Your task to perform on an android device: set the stopwatch Image 0: 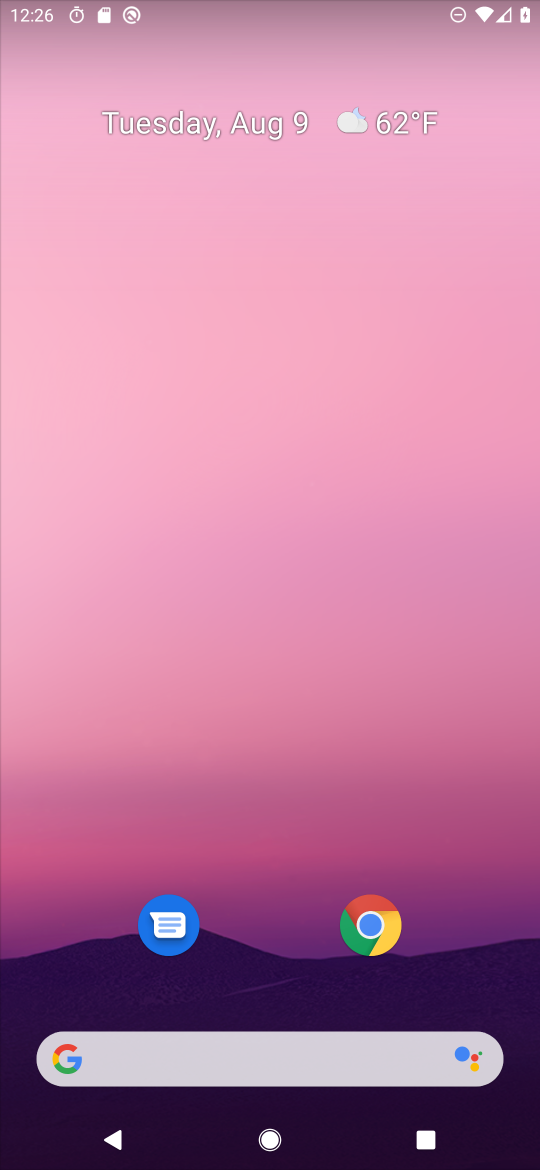
Step 0: drag from (272, 903) to (311, 231)
Your task to perform on an android device: set the stopwatch Image 1: 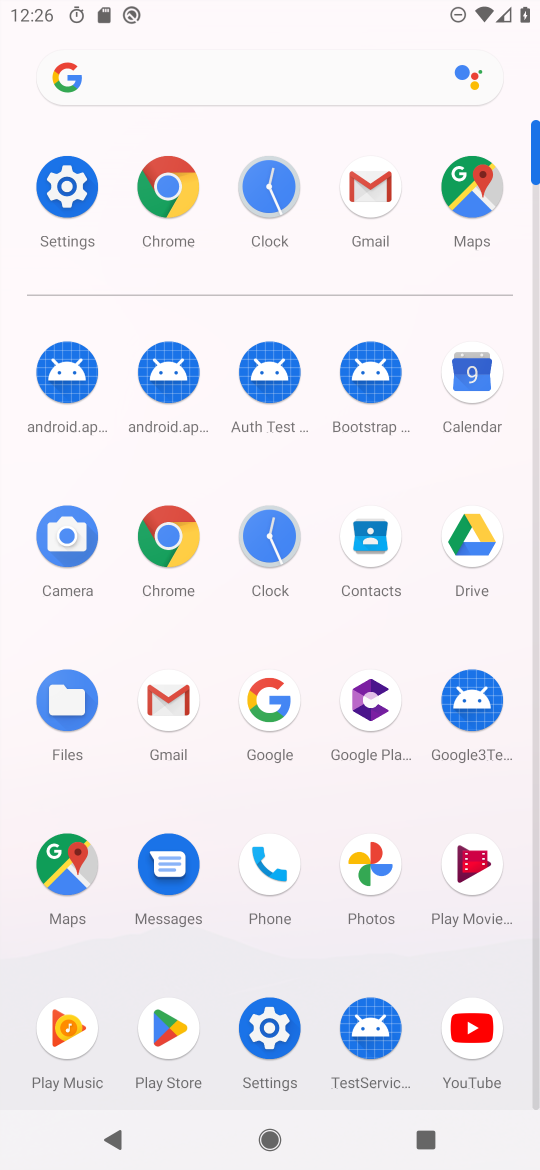
Step 1: click (268, 524)
Your task to perform on an android device: set the stopwatch Image 2: 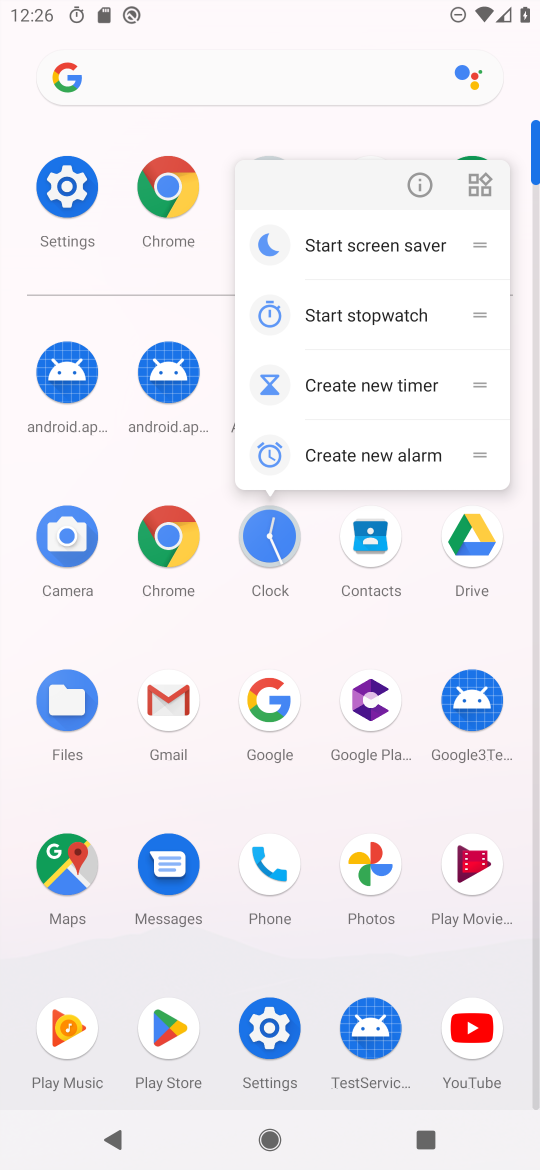
Step 2: click (268, 528)
Your task to perform on an android device: set the stopwatch Image 3: 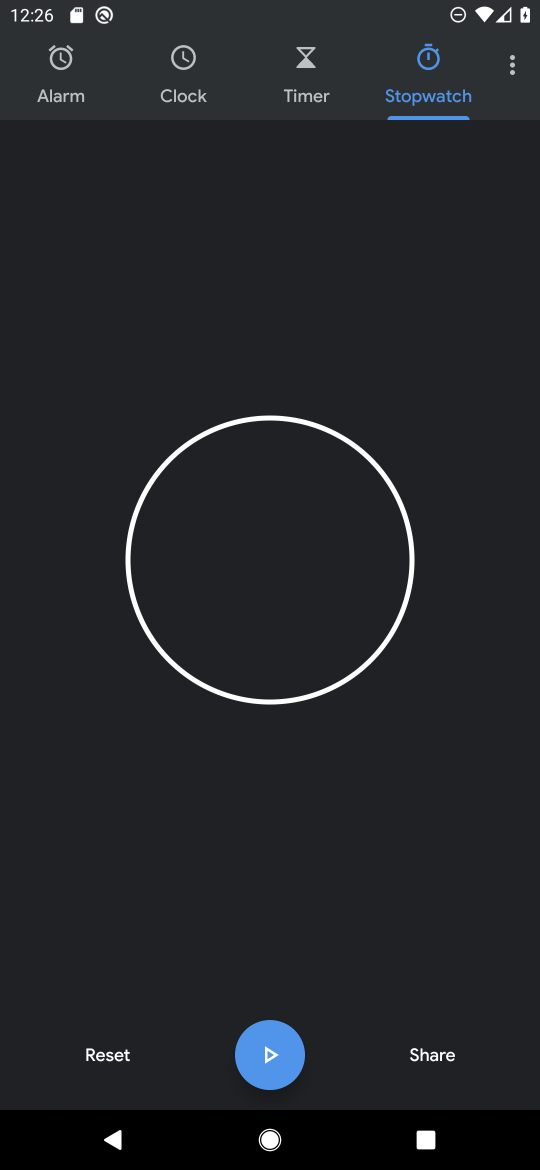
Step 3: task complete